Your task to perform on an android device: Is it going to rain tomorrow? Image 0: 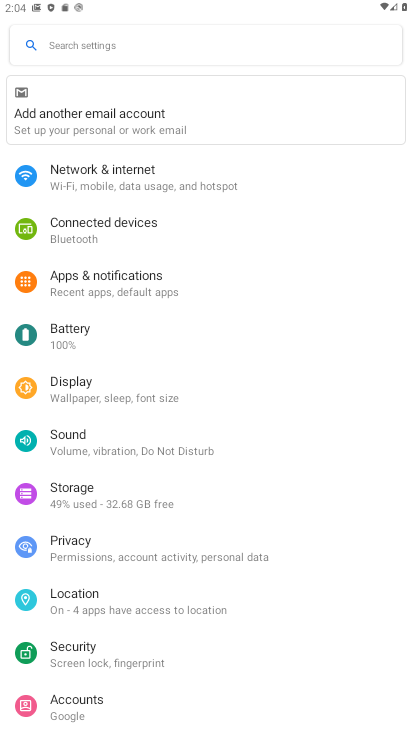
Step 0: press home button
Your task to perform on an android device: Is it going to rain tomorrow? Image 1: 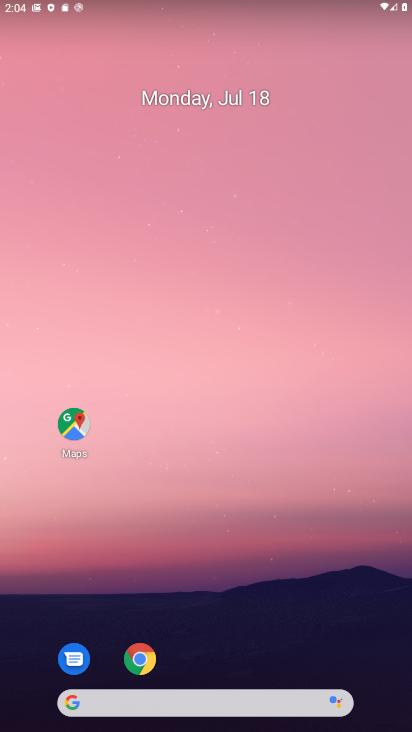
Step 1: click (146, 667)
Your task to perform on an android device: Is it going to rain tomorrow? Image 2: 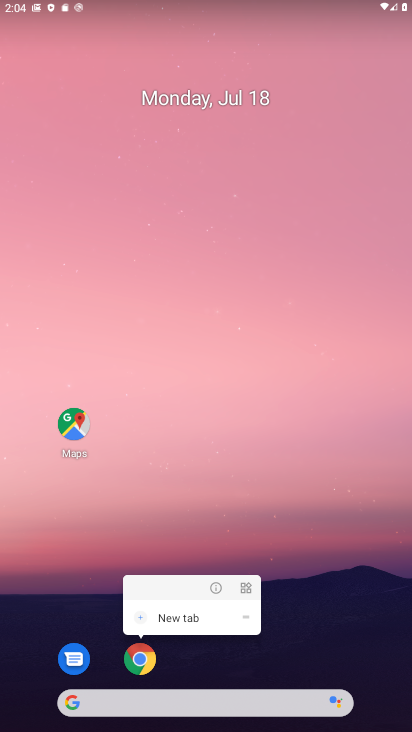
Step 2: click (160, 673)
Your task to perform on an android device: Is it going to rain tomorrow? Image 3: 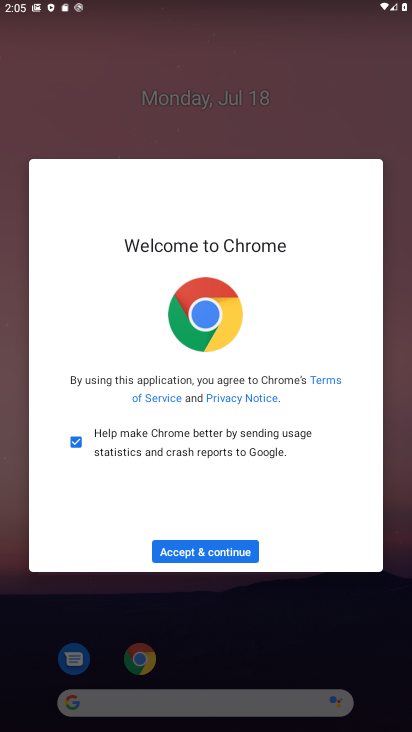
Step 3: click (226, 543)
Your task to perform on an android device: Is it going to rain tomorrow? Image 4: 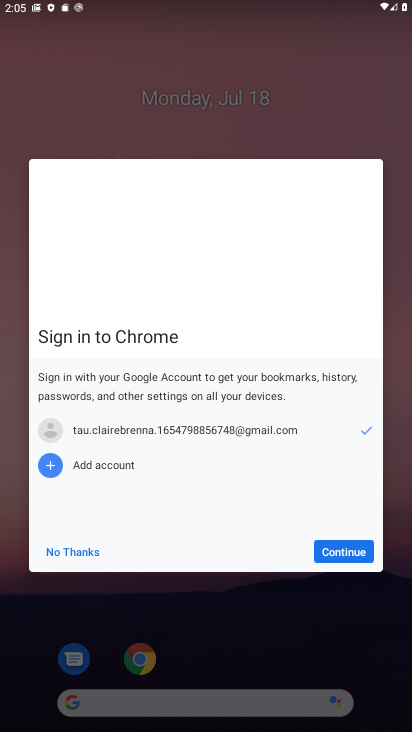
Step 4: click (322, 538)
Your task to perform on an android device: Is it going to rain tomorrow? Image 5: 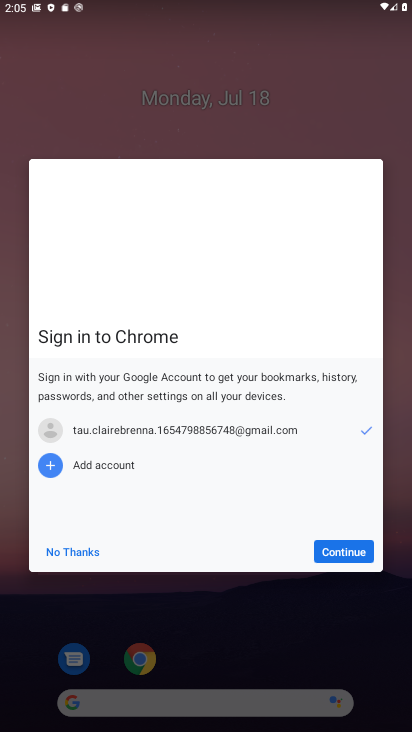
Step 5: click (332, 550)
Your task to perform on an android device: Is it going to rain tomorrow? Image 6: 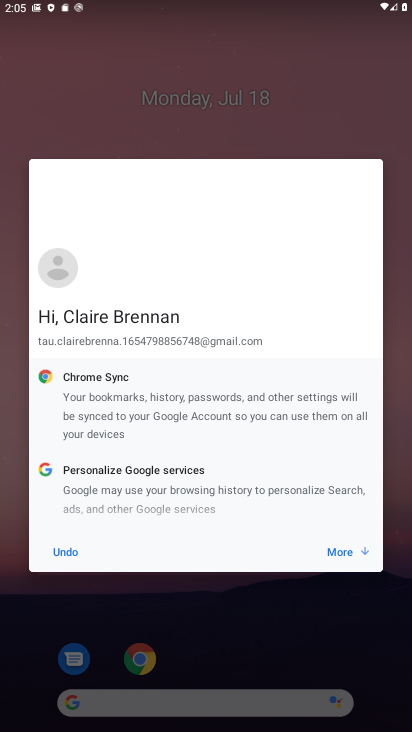
Step 6: click (332, 550)
Your task to perform on an android device: Is it going to rain tomorrow? Image 7: 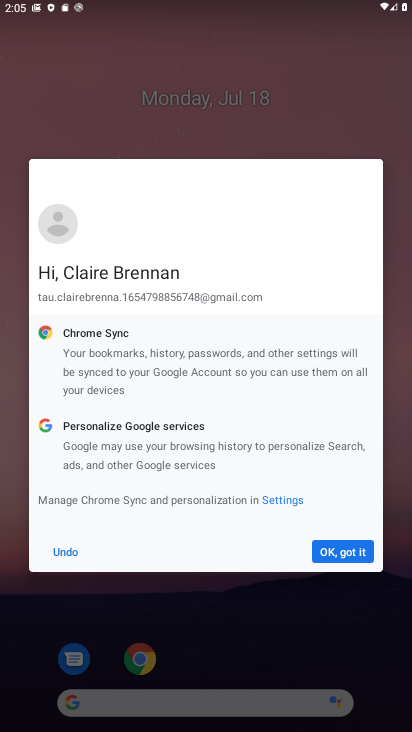
Step 7: click (334, 552)
Your task to perform on an android device: Is it going to rain tomorrow? Image 8: 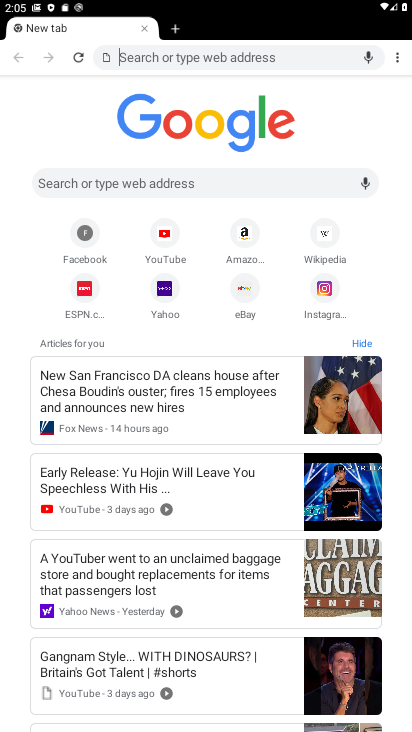
Step 8: click (160, 184)
Your task to perform on an android device: Is it going to rain tomorrow? Image 9: 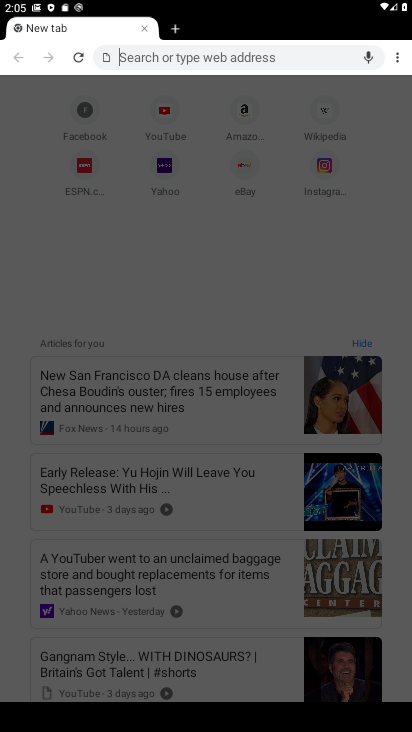
Step 9: type "weather tomorrow"
Your task to perform on an android device: Is it going to rain tomorrow? Image 10: 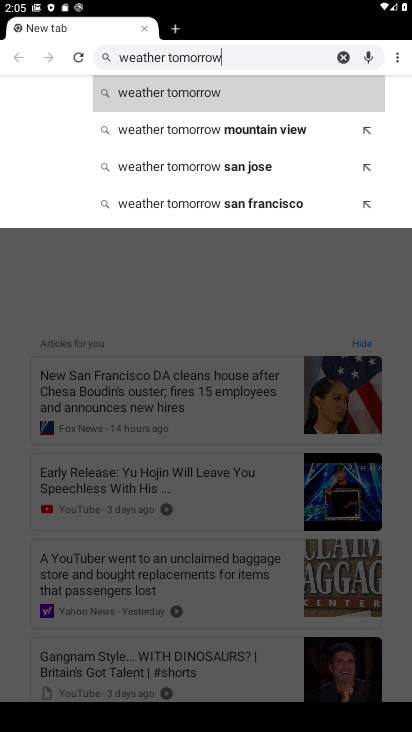
Step 10: click (232, 96)
Your task to perform on an android device: Is it going to rain tomorrow? Image 11: 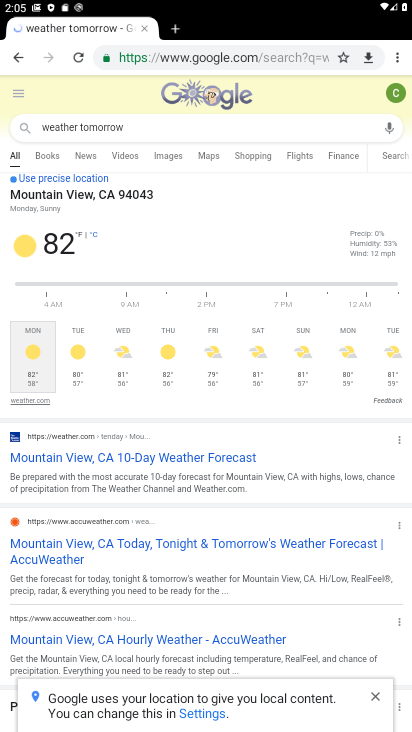
Step 11: task complete